Your task to perform on an android device: set default search engine in the chrome app Image 0: 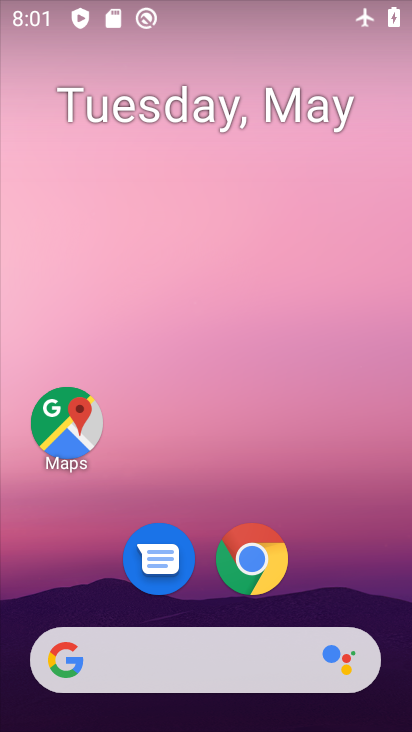
Step 0: click (263, 546)
Your task to perform on an android device: set default search engine in the chrome app Image 1: 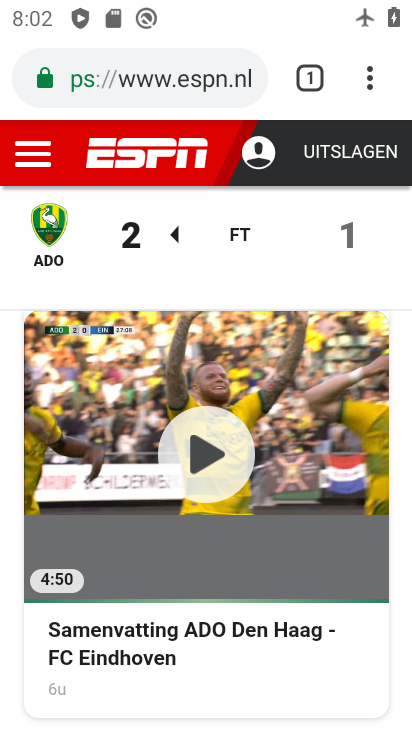
Step 1: drag from (362, 74) to (104, 624)
Your task to perform on an android device: set default search engine in the chrome app Image 2: 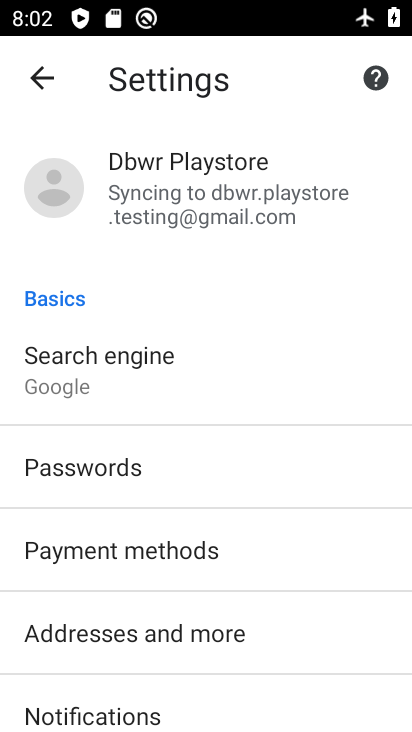
Step 2: click (163, 355)
Your task to perform on an android device: set default search engine in the chrome app Image 3: 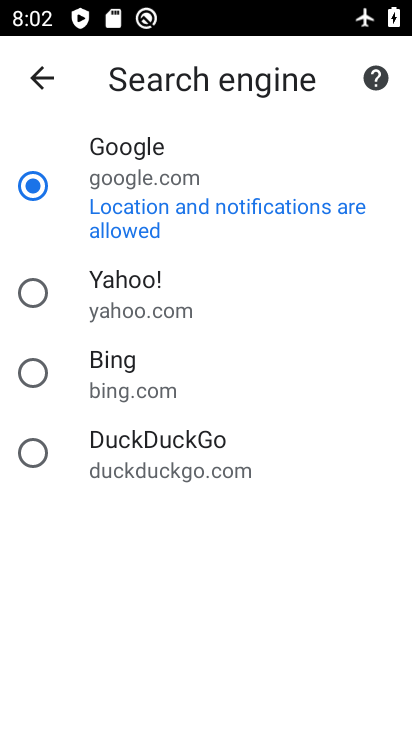
Step 3: click (114, 292)
Your task to perform on an android device: set default search engine in the chrome app Image 4: 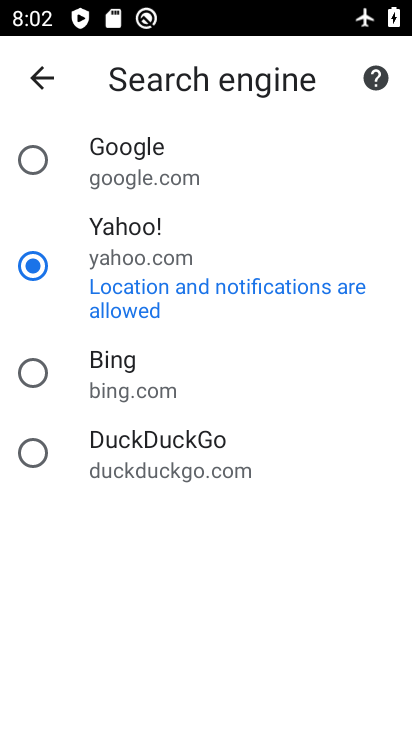
Step 4: task complete